Your task to perform on an android device: Search for Mexican restaurants on Maps Image 0: 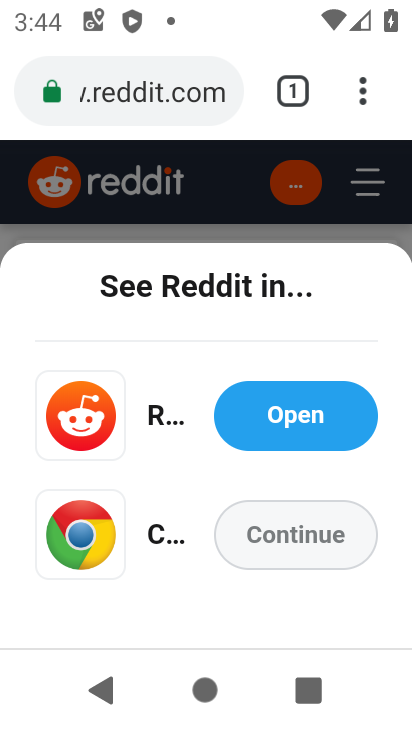
Step 0: press home button
Your task to perform on an android device: Search for Mexican restaurants on Maps Image 1: 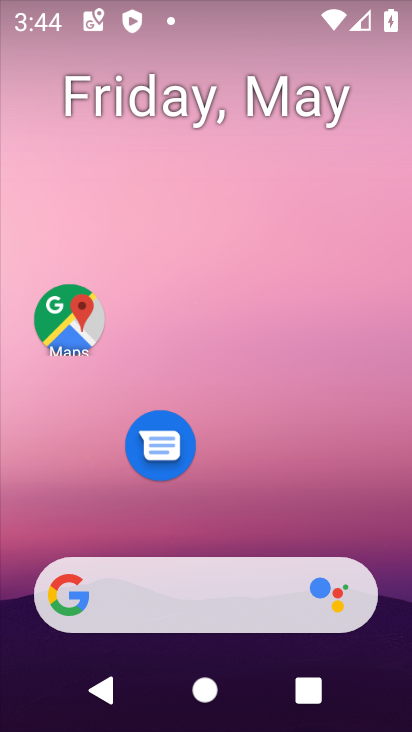
Step 1: click (80, 313)
Your task to perform on an android device: Search for Mexican restaurants on Maps Image 2: 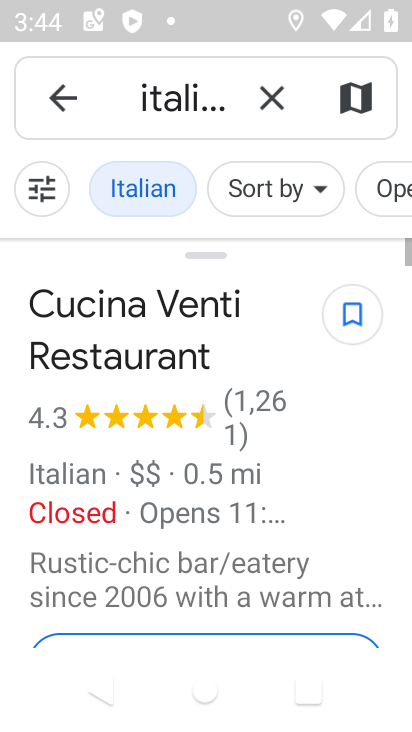
Step 2: click (271, 96)
Your task to perform on an android device: Search for Mexican restaurants on Maps Image 3: 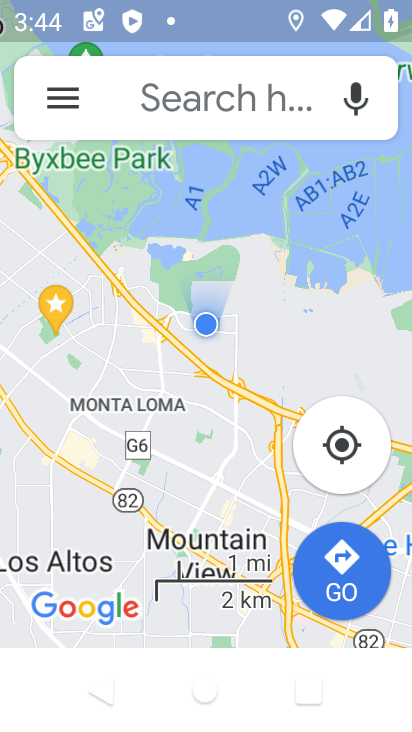
Step 3: click (222, 109)
Your task to perform on an android device: Search for Mexican restaurants on Maps Image 4: 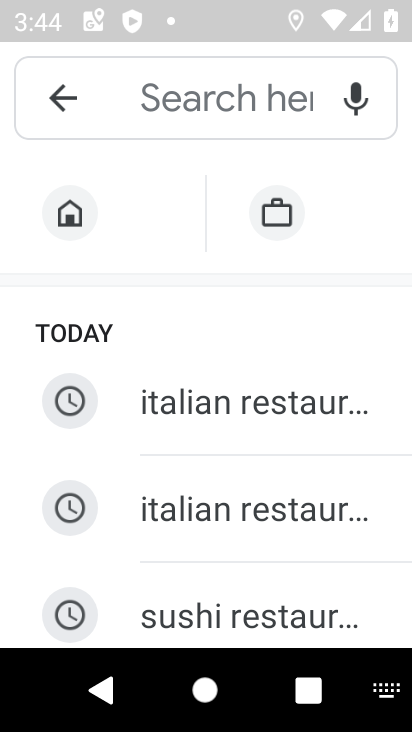
Step 4: type "Mexican restaurants"
Your task to perform on an android device: Search for Mexican restaurants on Maps Image 5: 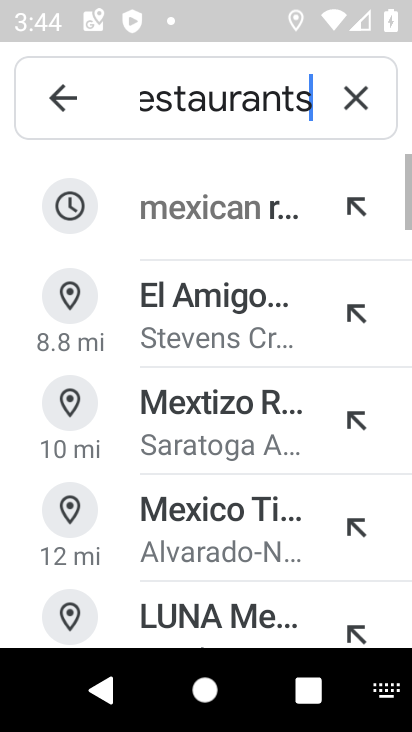
Step 5: click (211, 206)
Your task to perform on an android device: Search for Mexican restaurants on Maps Image 6: 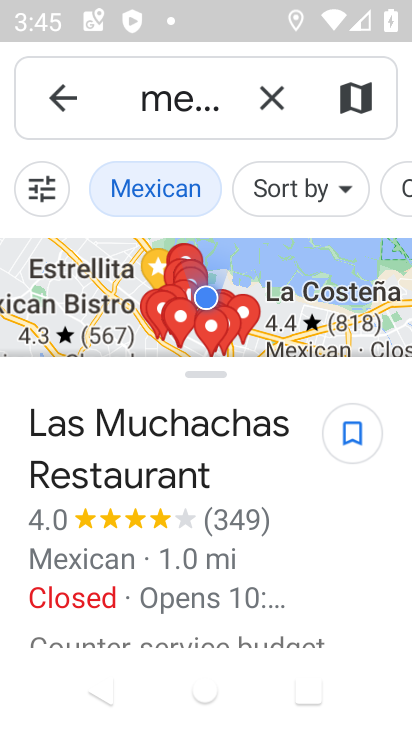
Step 6: task complete